Your task to perform on an android device: check android version Image 0: 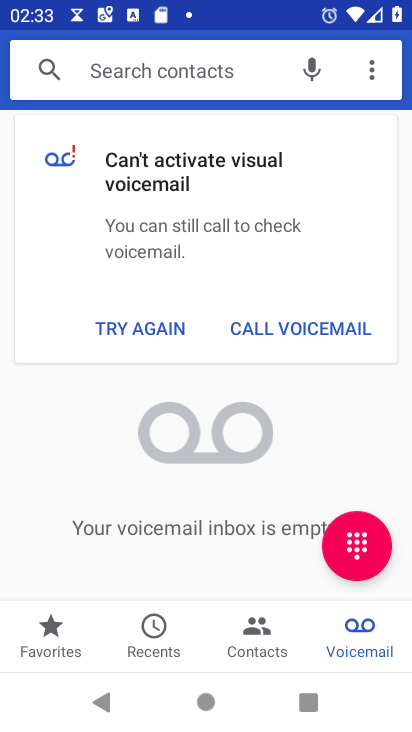
Step 0: press home button
Your task to perform on an android device: check android version Image 1: 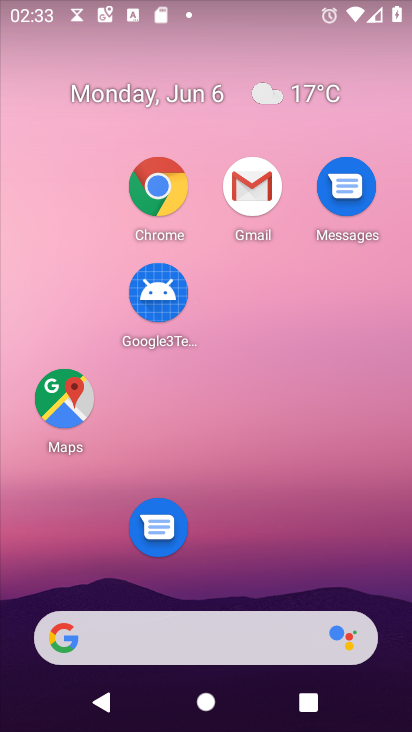
Step 1: drag from (288, 490) to (301, 133)
Your task to perform on an android device: check android version Image 2: 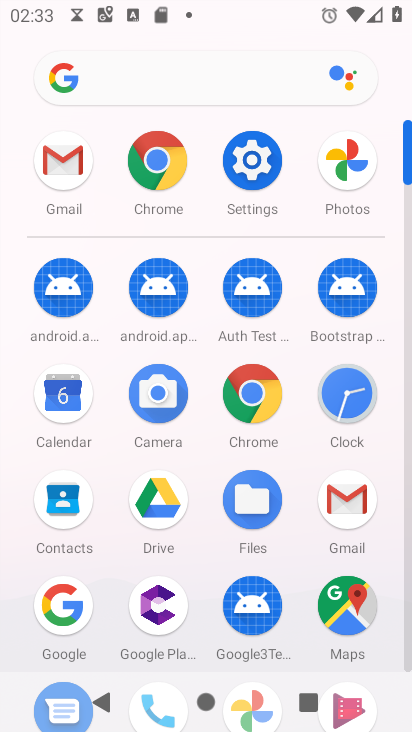
Step 2: click (235, 167)
Your task to perform on an android device: check android version Image 3: 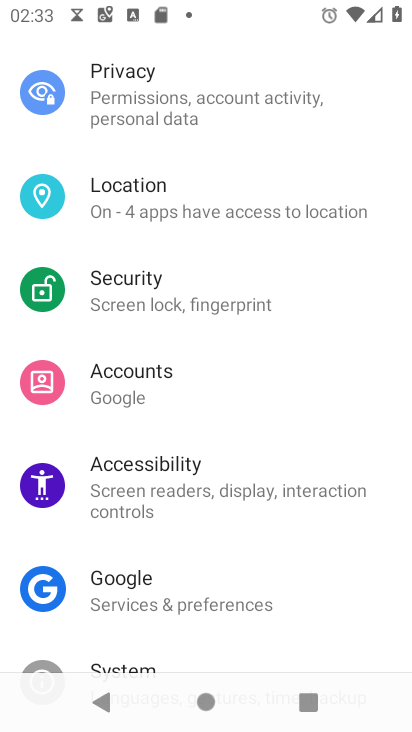
Step 3: drag from (389, 585) to (369, 181)
Your task to perform on an android device: check android version Image 4: 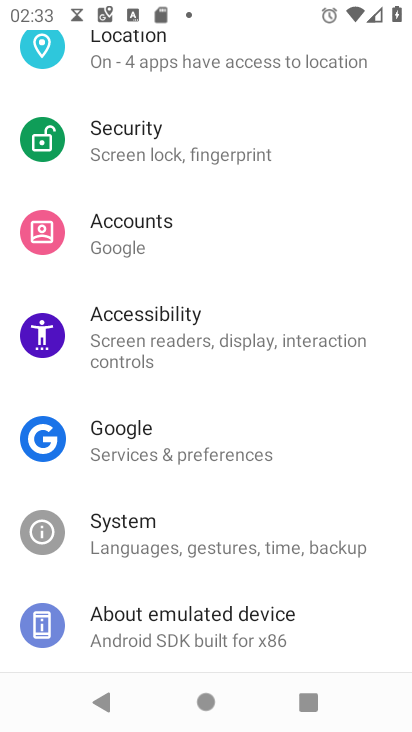
Step 4: click (189, 604)
Your task to perform on an android device: check android version Image 5: 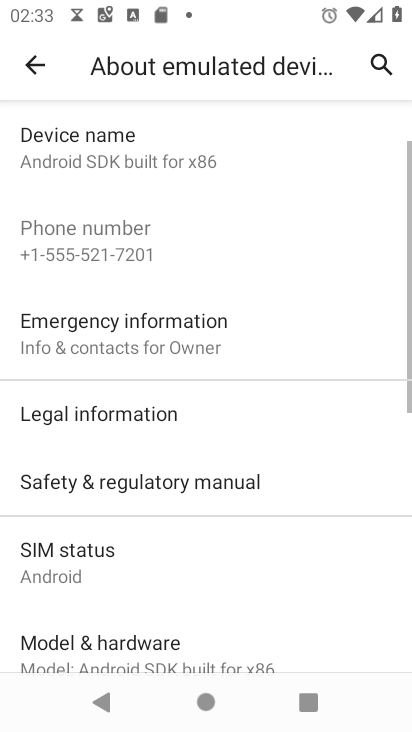
Step 5: drag from (367, 632) to (382, 332)
Your task to perform on an android device: check android version Image 6: 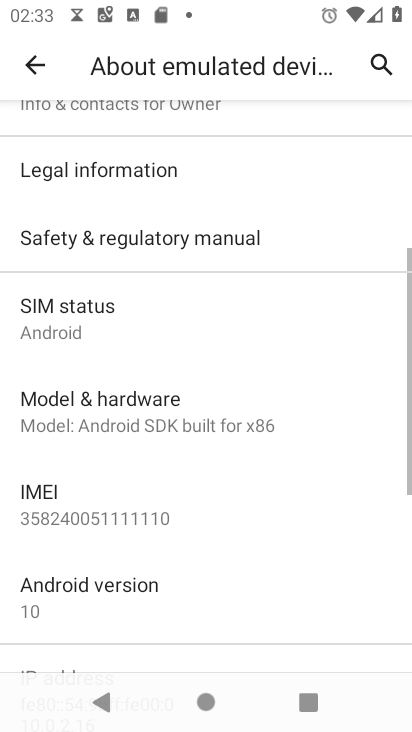
Step 6: click (208, 572)
Your task to perform on an android device: check android version Image 7: 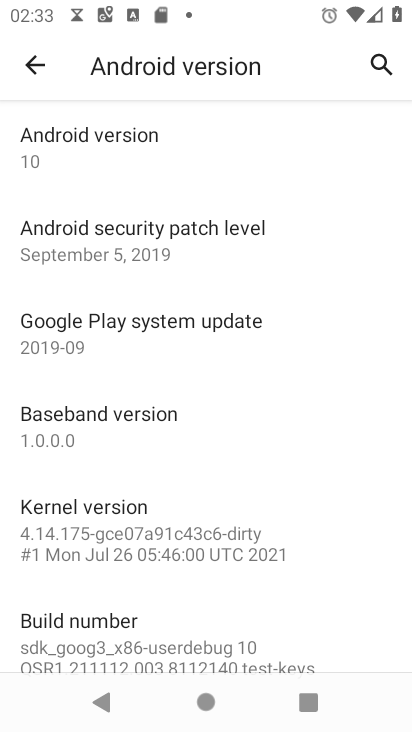
Step 7: click (285, 139)
Your task to perform on an android device: check android version Image 8: 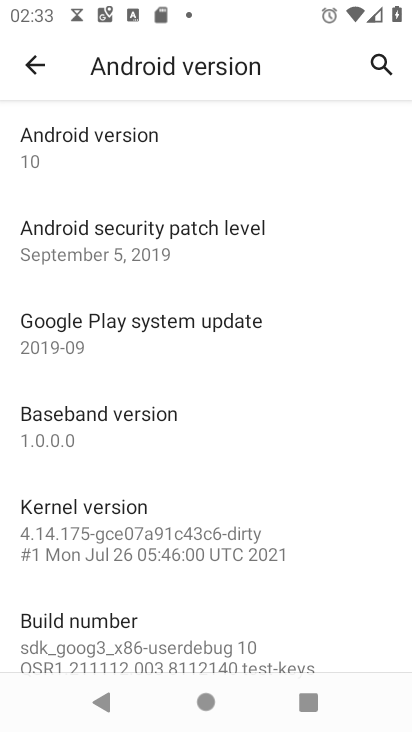
Step 8: task complete